Your task to perform on an android device: toggle notifications settings in the gmail app Image 0: 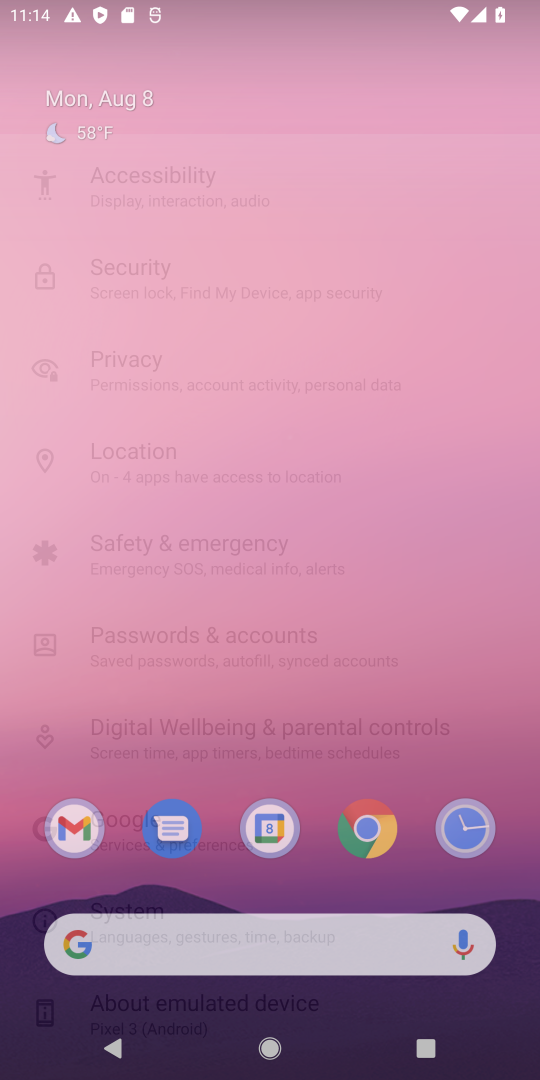
Step 0: press home button
Your task to perform on an android device: toggle notifications settings in the gmail app Image 1: 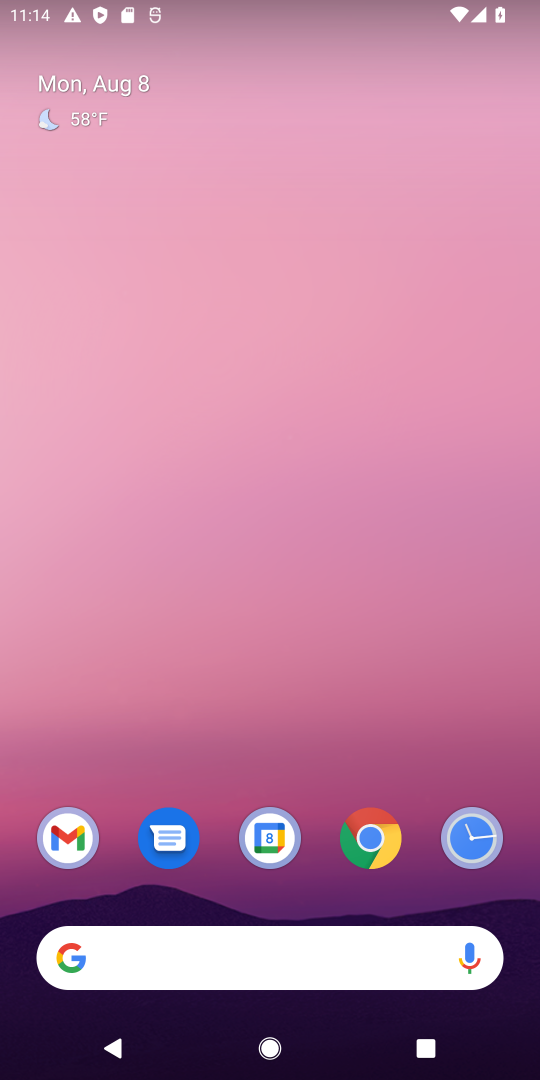
Step 1: click (59, 855)
Your task to perform on an android device: toggle notifications settings in the gmail app Image 2: 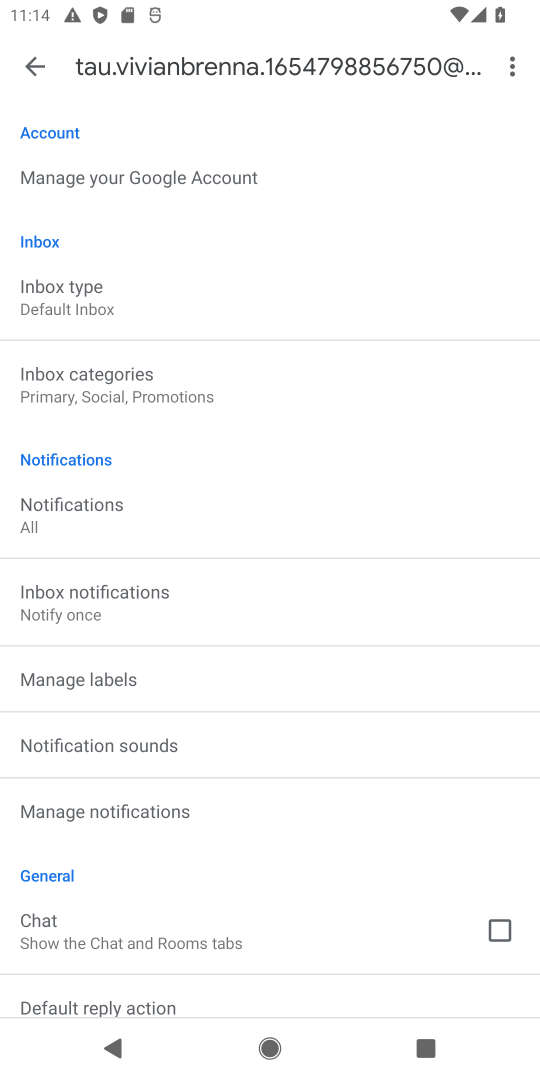
Step 2: click (99, 809)
Your task to perform on an android device: toggle notifications settings in the gmail app Image 3: 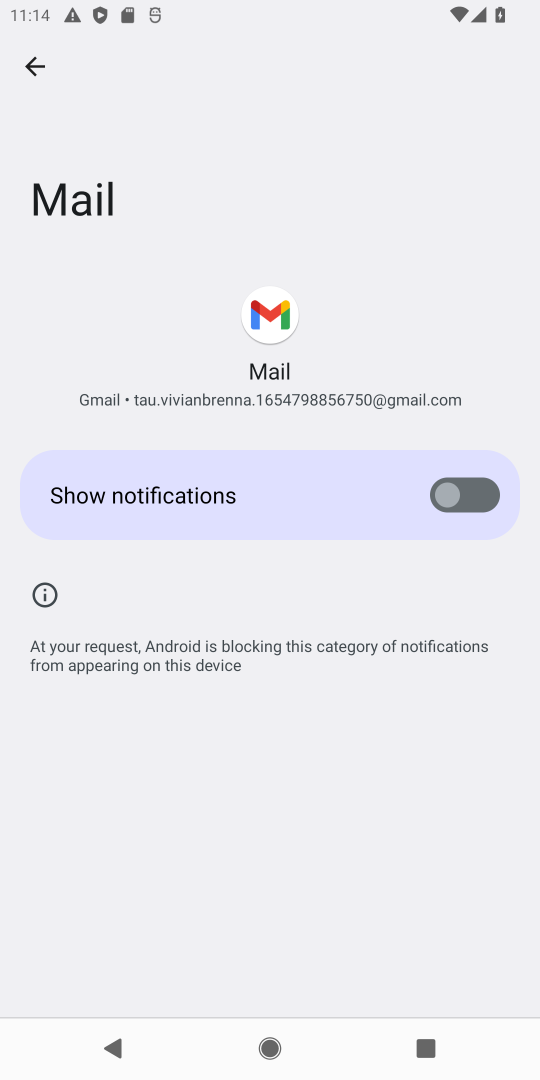
Step 3: click (456, 493)
Your task to perform on an android device: toggle notifications settings in the gmail app Image 4: 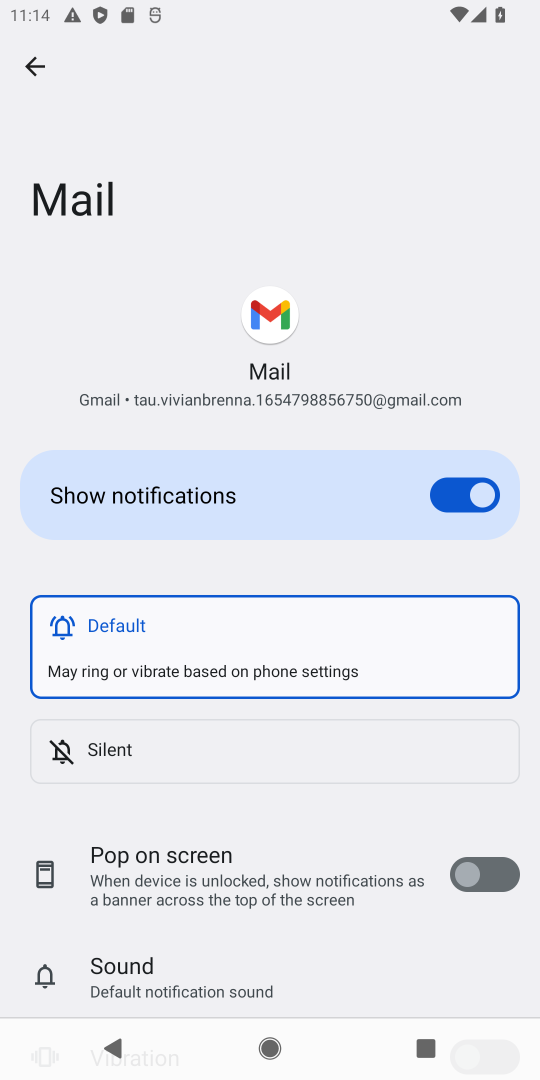
Step 4: task complete